Your task to perform on an android device: change the clock display to show seconds Image 0: 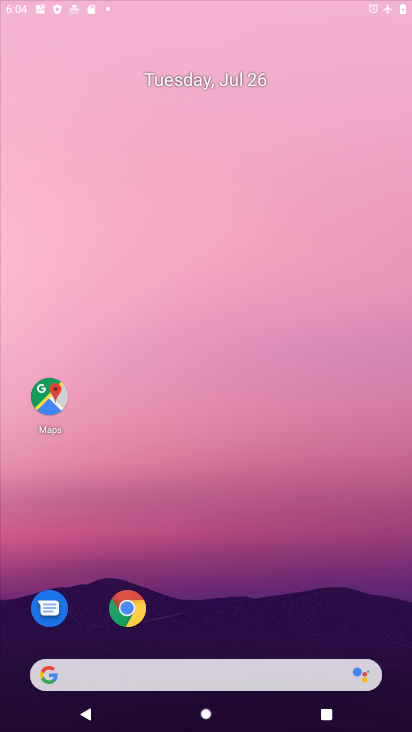
Step 0: press home button
Your task to perform on an android device: change the clock display to show seconds Image 1: 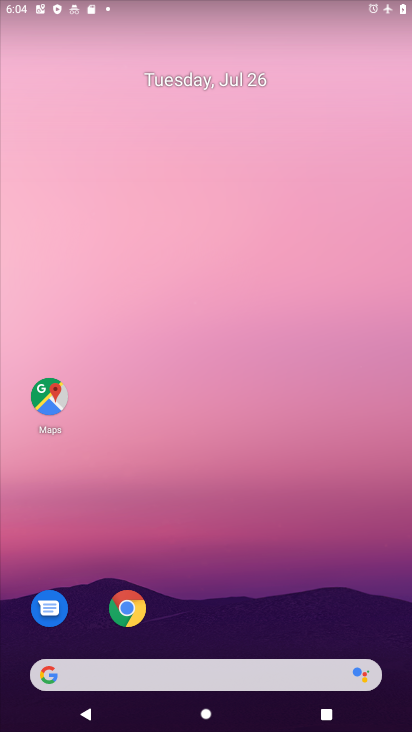
Step 1: drag from (225, 632) to (229, 85)
Your task to perform on an android device: change the clock display to show seconds Image 2: 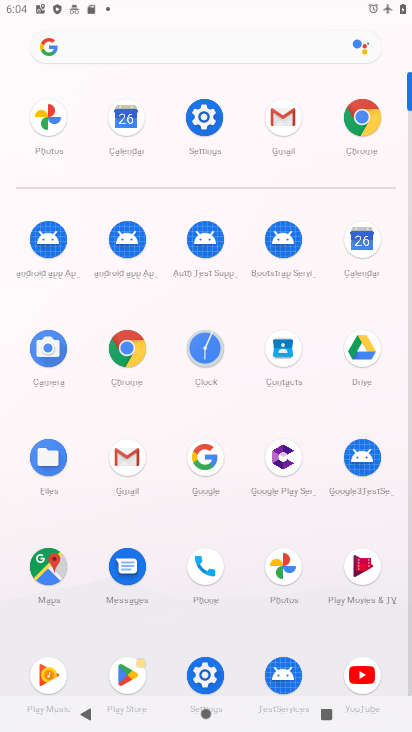
Step 2: click (195, 350)
Your task to perform on an android device: change the clock display to show seconds Image 3: 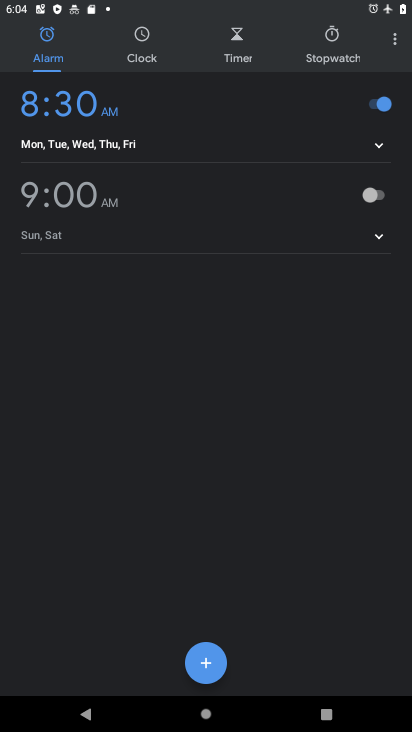
Step 3: click (395, 43)
Your task to perform on an android device: change the clock display to show seconds Image 4: 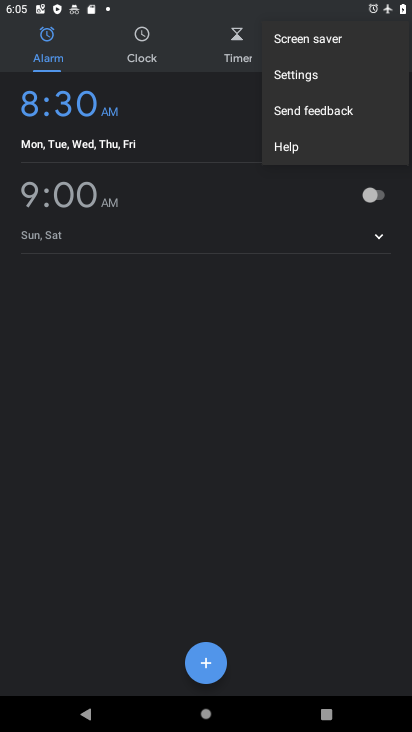
Step 4: click (318, 82)
Your task to perform on an android device: change the clock display to show seconds Image 5: 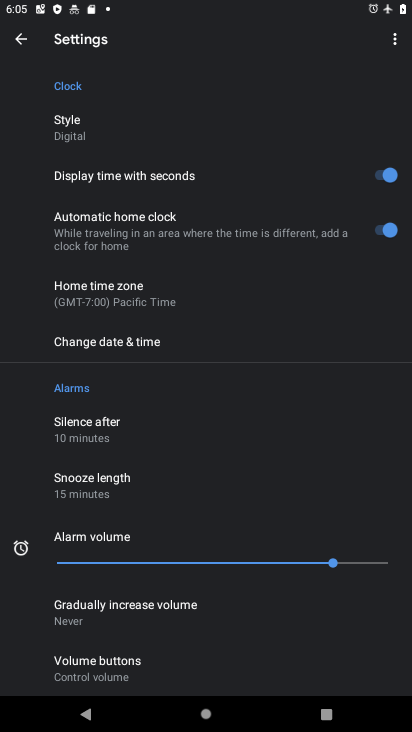
Step 5: task complete